Your task to perform on an android device: Go to settings Image 0: 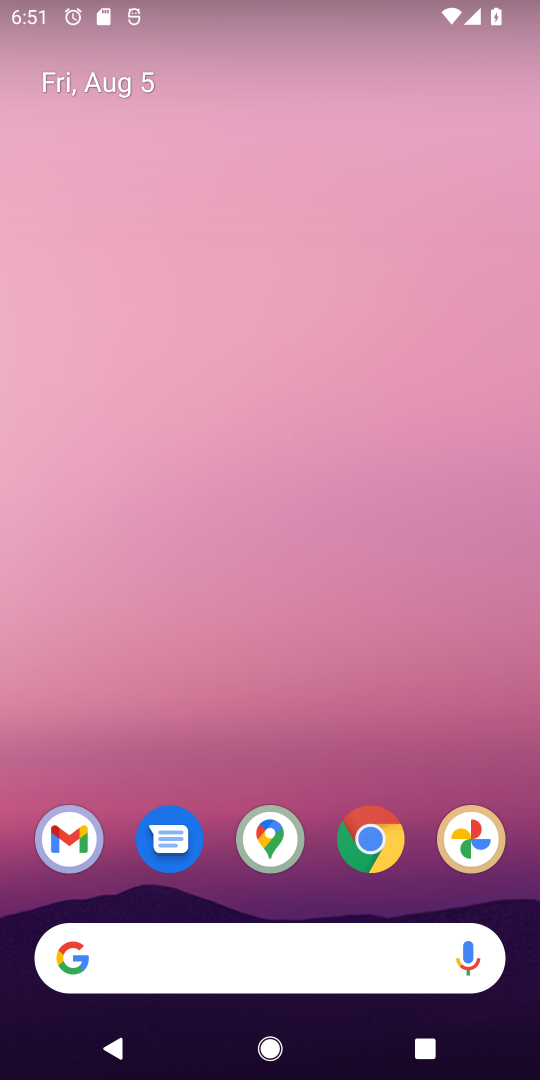
Step 0: click (216, 11)
Your task to perform on an android device: Go to settings Image 1: 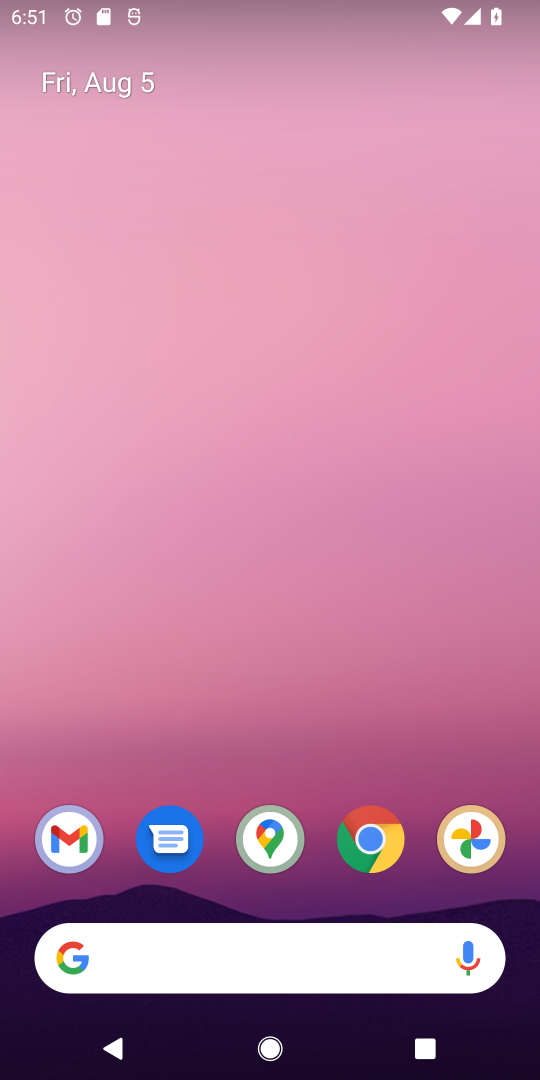
Step 1: drag from (322, 754) to (219, 142)
Your task to perform on an android device: Go to settings Image 2: 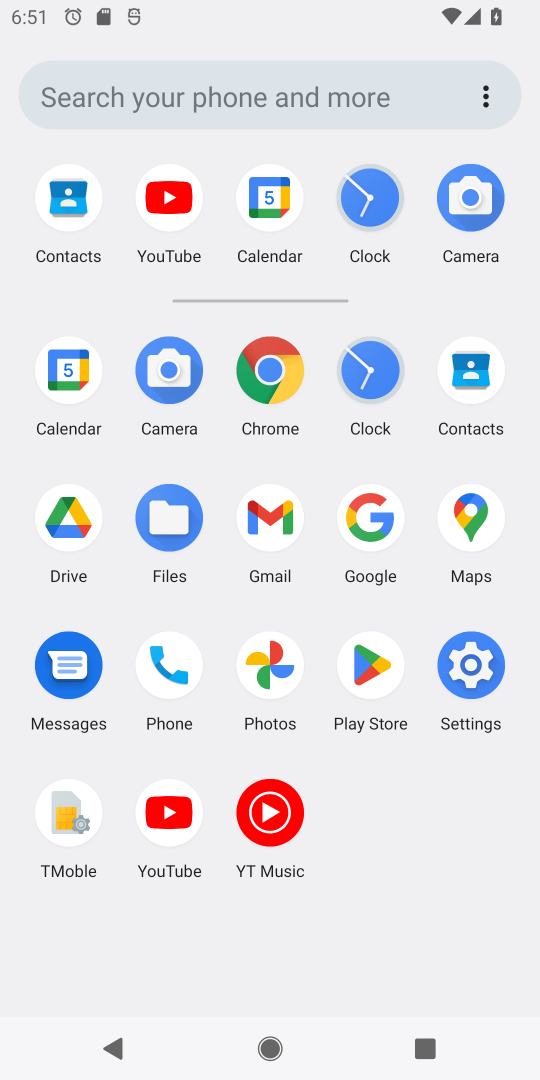
Step 2: click (448, 668)
Your task to perform on an android device: Go to settings Image 3: 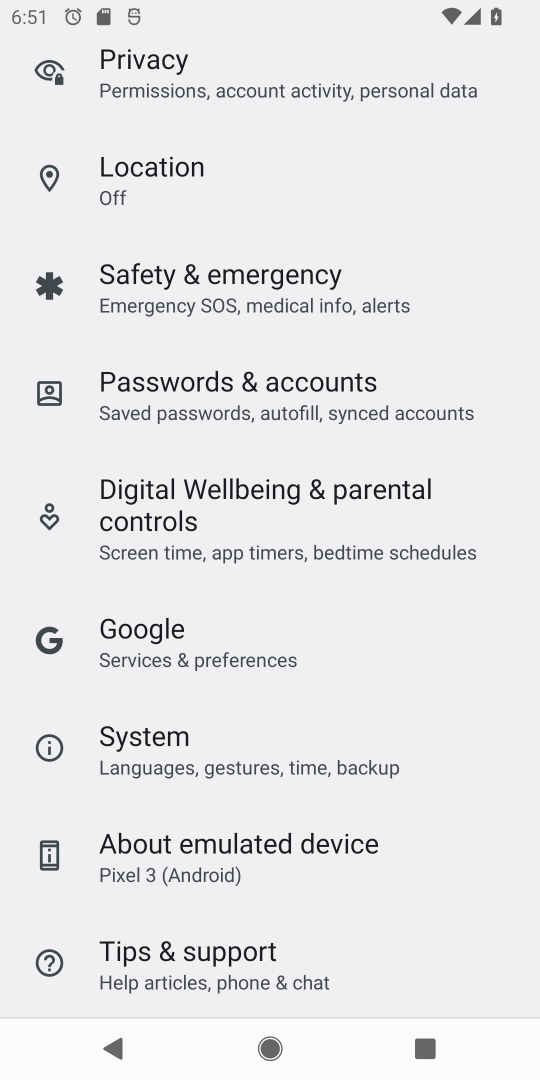
Step 3: task complete